Your task to perform on an android device: Show me popular games on the Play Store Image 0: 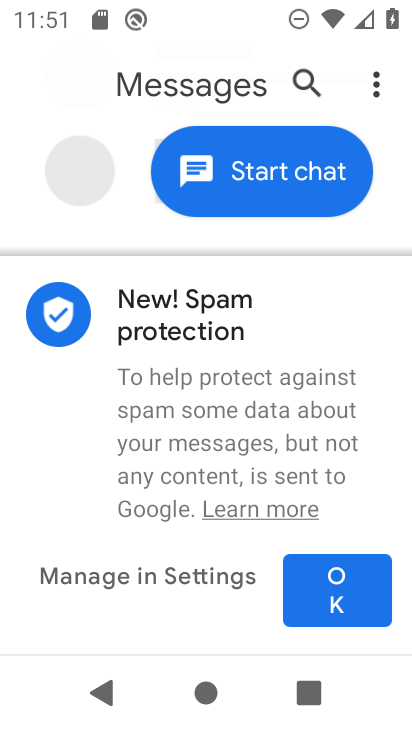
Step 0: press home button
Your task to perform on an android device: Show me popular games on the Play Store Image 1: 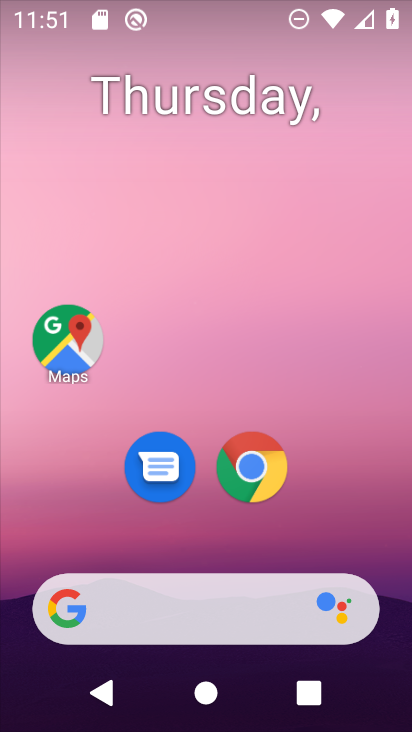
Step 1: drag from (352, 569) to (337, 3)
Your task to perform on an android device: Show me popular games on the Play Store Image 2: 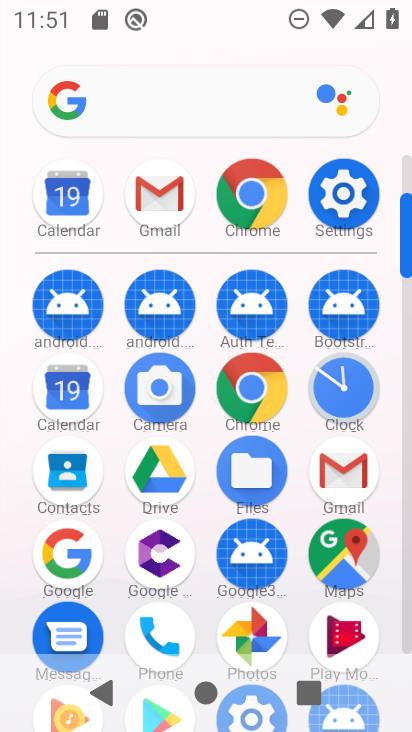
Step 2: click (405, 467)
Your task to perform on an android device: Show me popular games on the Play Store Image 3: 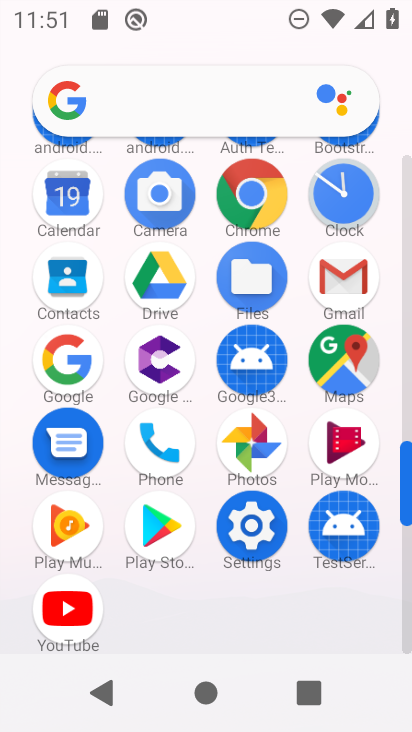
Step 3: click (152, 530)
Your task to perform on an android device: Show me popular games on the Play Store Image 4: 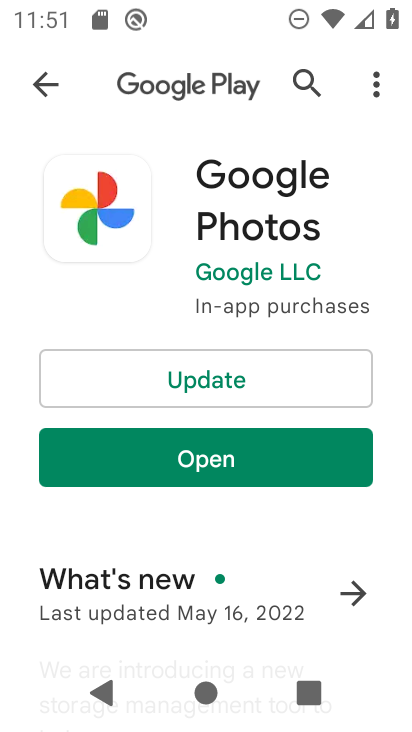
Step 4: click (46, 88)
Your task to perform on an android device: Show me popular games on the Play Store Image 5: 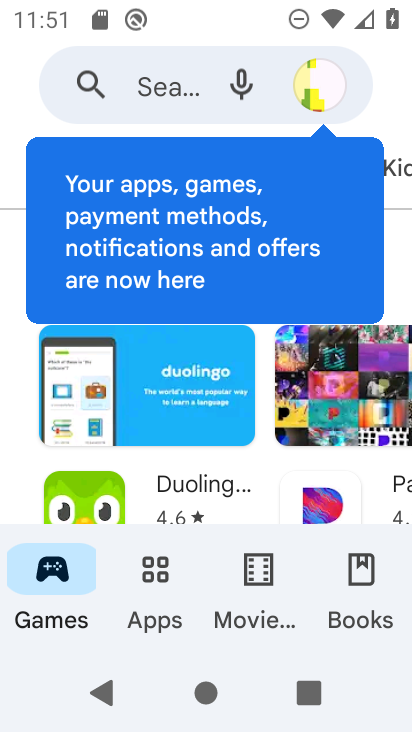
Step 5: drag from (248, 489) to (227, 107)
Your task to perform on an android device: Show me popular games on the Play Store Image 6: 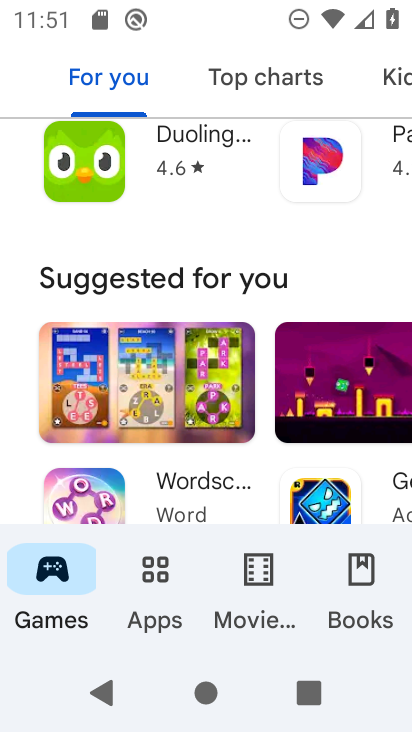
Step 6: drag from (212, 459) to (197, 37)
Your task to perform on an android device: Show me popular games on the Play Store Image 7: 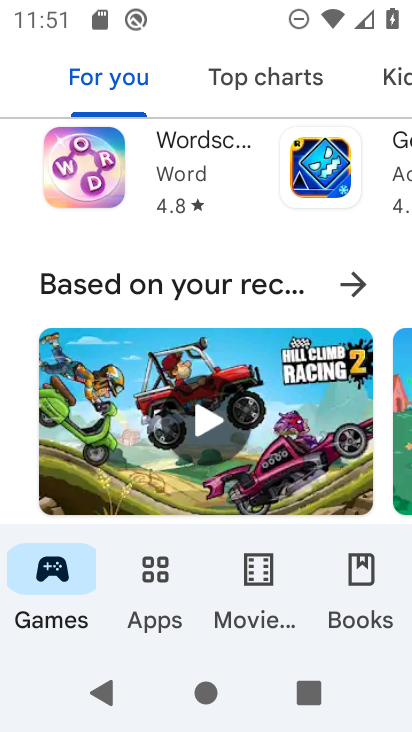
Step 7: drag from (179, 411) to (167, 92)
Your task to perform on an android device: Show me popular games on the Play Store Image 8: 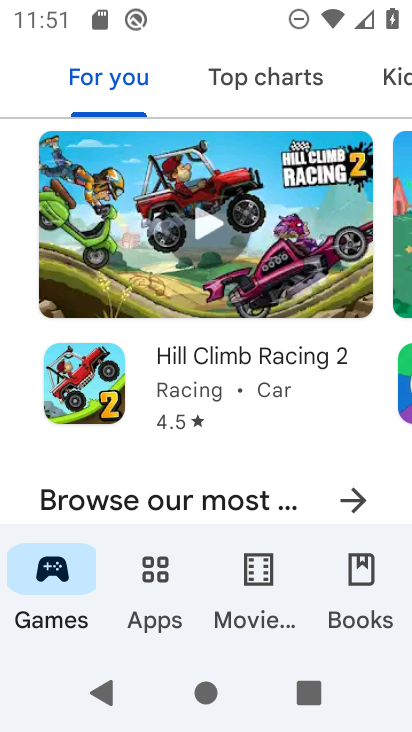
Step 8: drag from (162, 409) to (177, 162)
Your task to perform on an android device: Show me popular games on the Play Store Image 9: 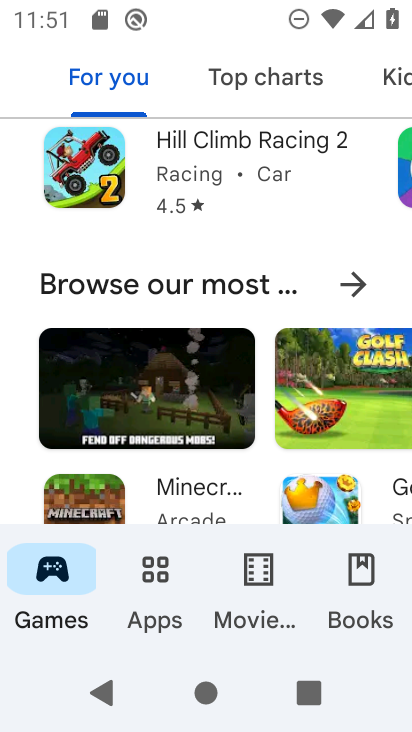
Step 9: click (262, 284)
Your task to perform on an android device: Show me popular games on the Play Store Image 10: 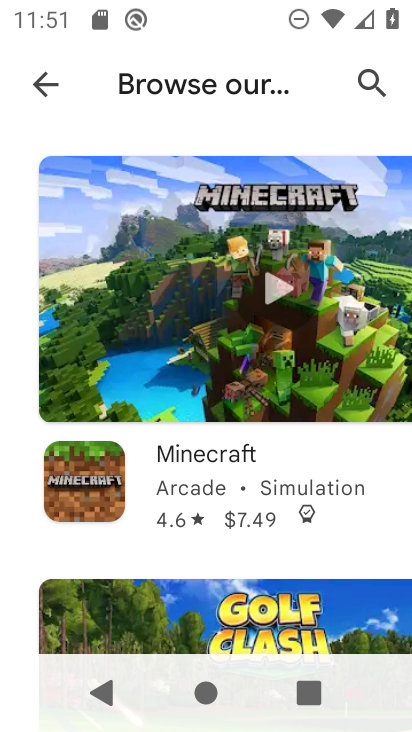
Step 10: task complete